Your task to perform on an android device: empty trash in the gmail app Image 0: 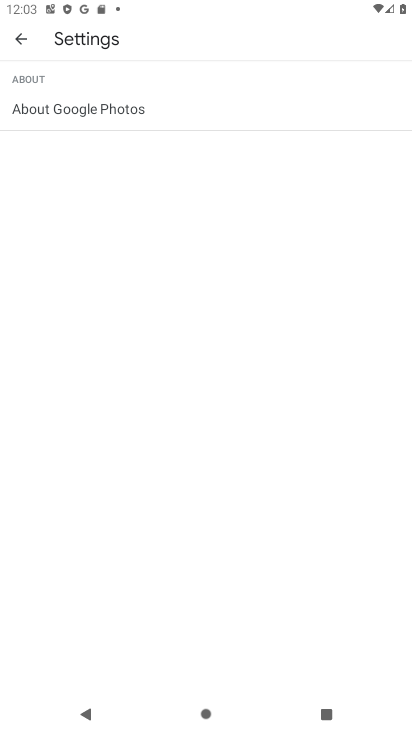
Step 0: press home button
Your task to perform on an android device: empty trash in the gmail app Image 1: 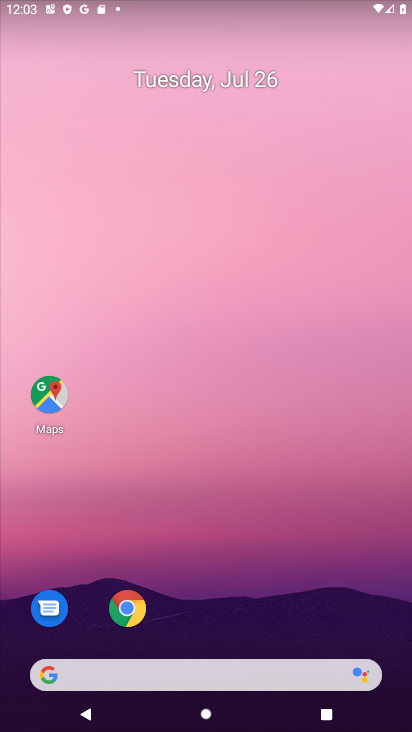
Step 1: drag from (196, 627) to (61, 42)
Your task to perform on an android device: empty trash in the gmail app Image 2: 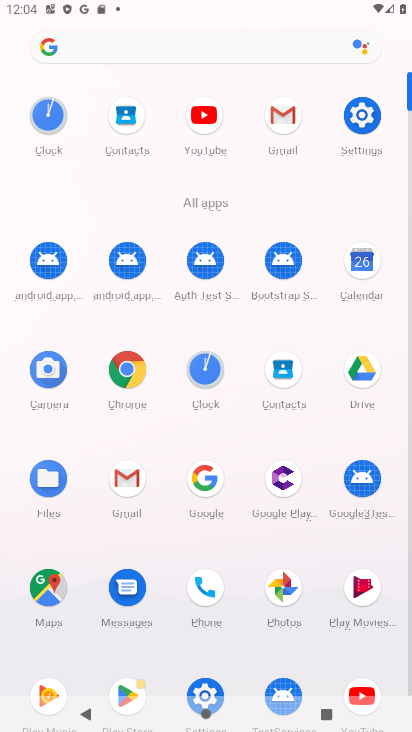
Step 2: click (292, 110)
Your task to perform on an android device: empty trash in the gmail app Image 3: 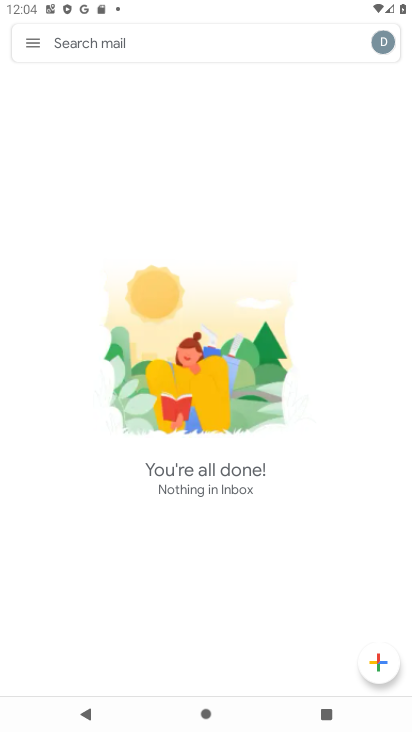
Step 3: click (44, 39)
Your task to perform on an android device: empty trash in the gmail app Image 4: 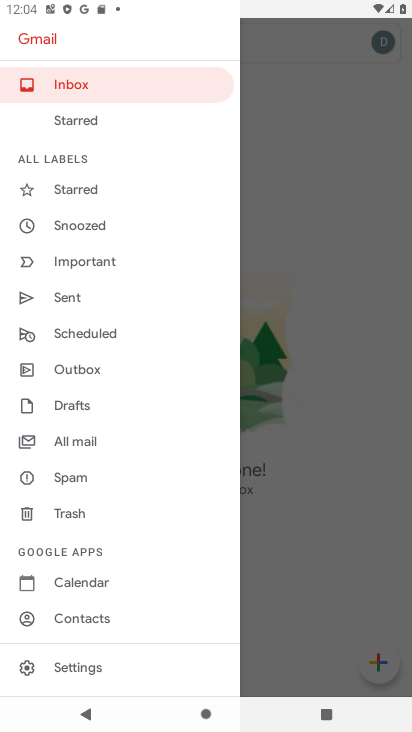
Step 4: click (121, 514)
Your task to perform on an android device: empty trash in the gmail app Image 5: 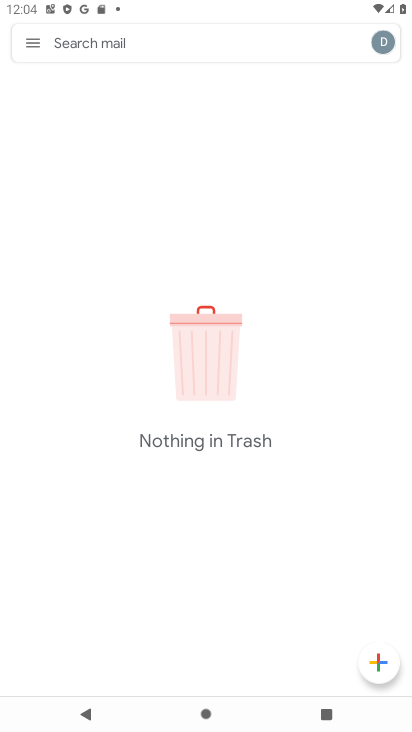
Step 5: task complete